Your task to perform on an android device: turn on javascript in the chrome app Image 0: 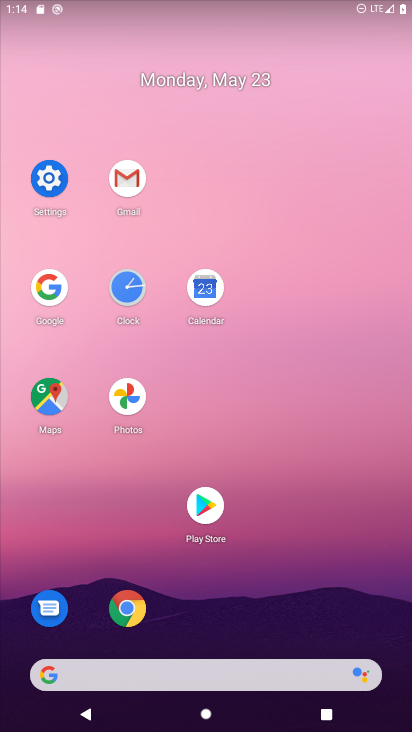
Step 0: click (125, 605)
Your task to perform on an android device: turn on javascript in the chrome app Image 1: 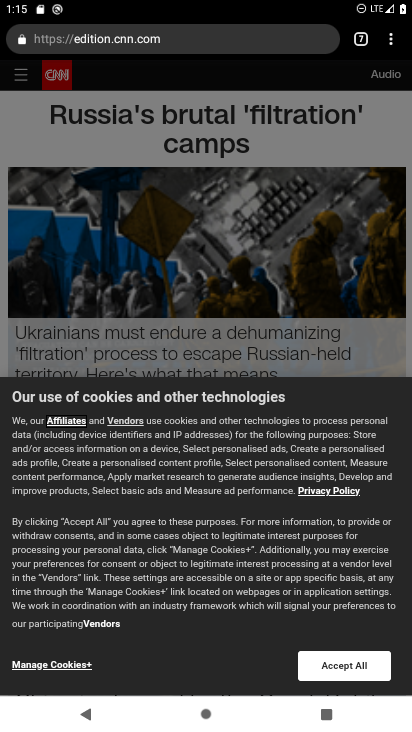
Step 1: click (398, 43)
Your task to perform on an android device: turn on javascript in the chrome app Image 2: 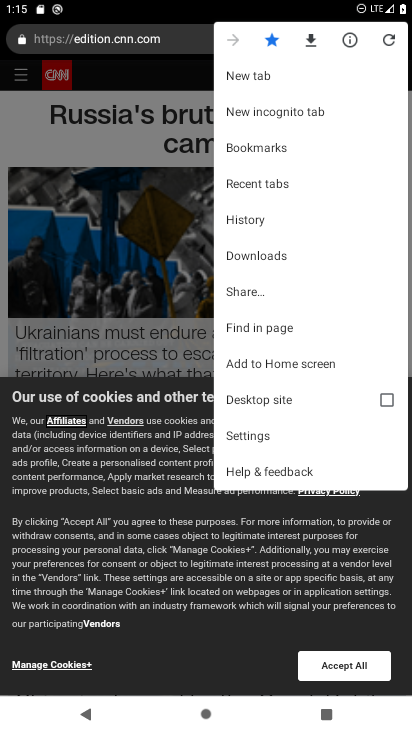
Step 2: click (270, 429)
Your task to perform on an android device: turn on javascript in the chrome app Image 3: 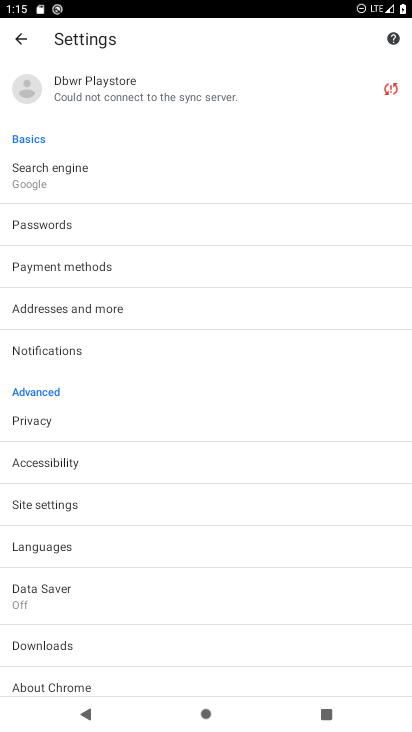
Step 3: click (102, 508)
Your task to perform on an android device: turn on javascript in the chrome app Image 4: 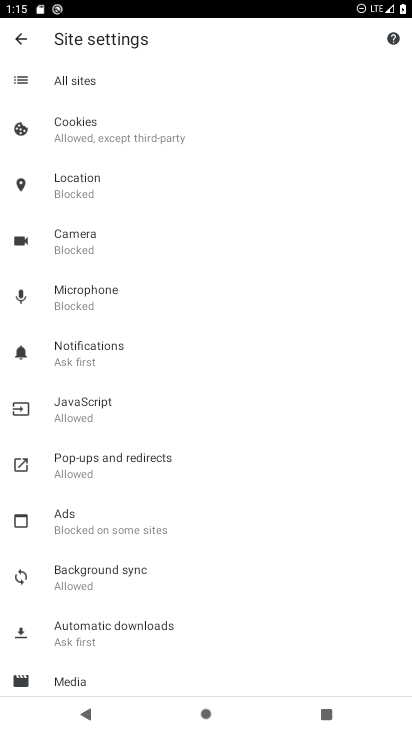
Step 4: click (142, 397)
Your task to perform on an android device: turn on javascript in the chrome app Image 5: 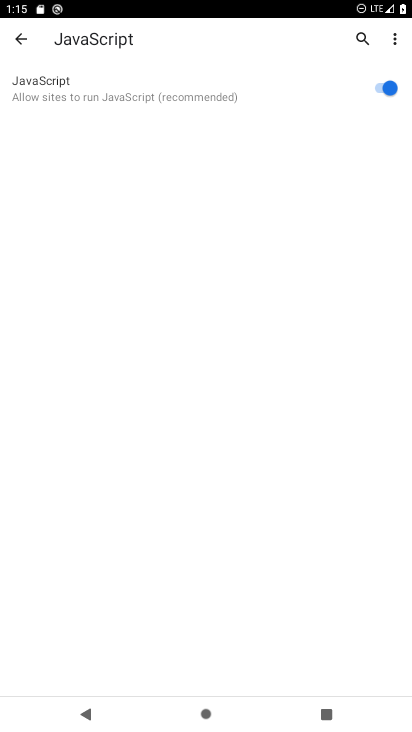
Step 5: task complete